Your task to perform on an android device: When is my next appointment? Image 0: 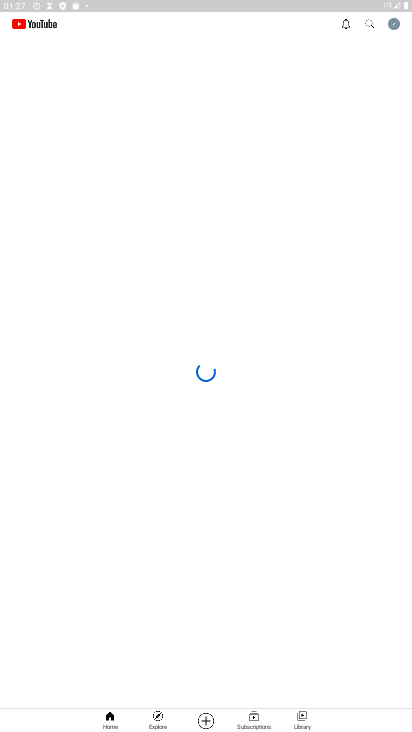
Step 0: press home button
Your task to perform on an android device: When is my next appointment? Image 1: 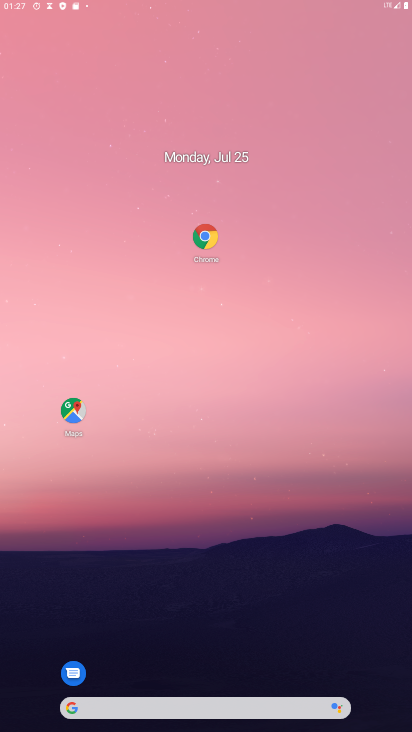
Step 1: click (208, 1)
Your task to perform on an android device: When is my next appointment? Image 2: 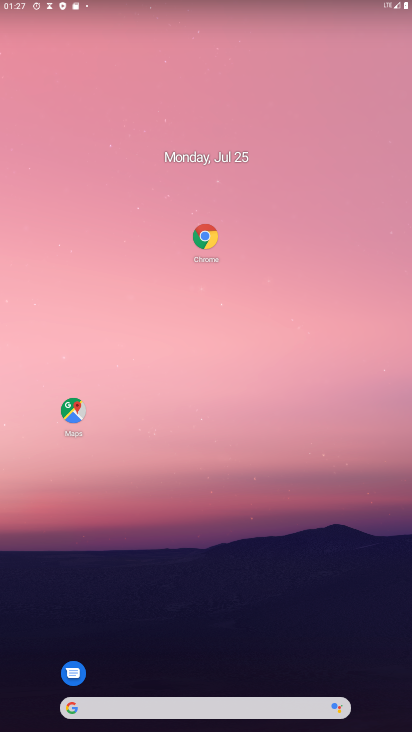
Step 2: drag from (221, 656) to (410, 500)
Your task to perform on an android device: When is my next appointment? Image 3: 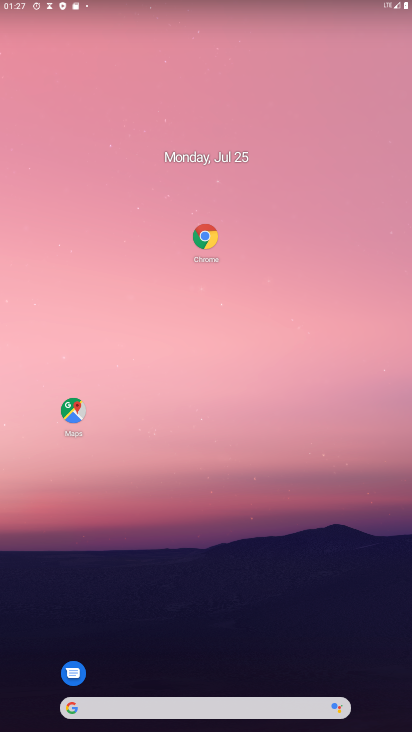
Step 3: drag from (263, 701) to (381, 32)
Your task to perform on an android device: When is my next appointment? Image 4: 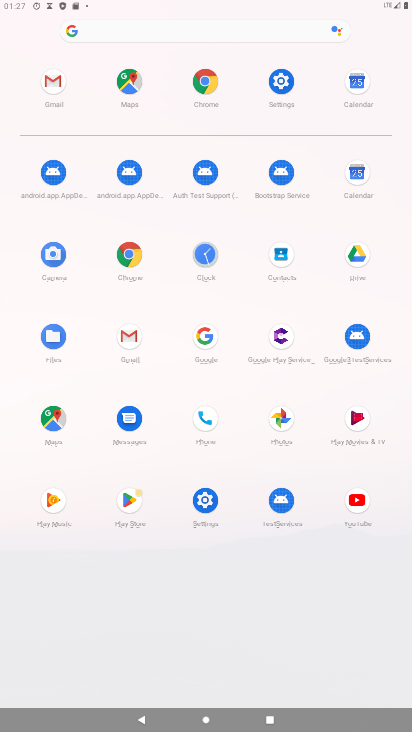
Step 4: click (360, 172)
Your task to perform on an android device: When is my next appointment? Image 5: 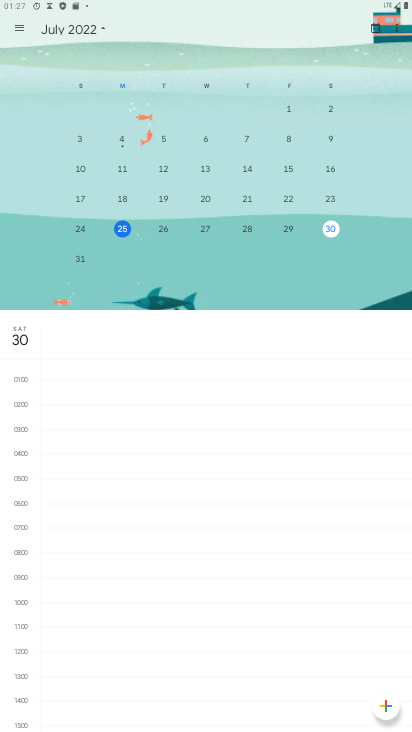
Step 5: click (203, 227)
Your task to perform on an android device: When is my next appointment? Image 6: 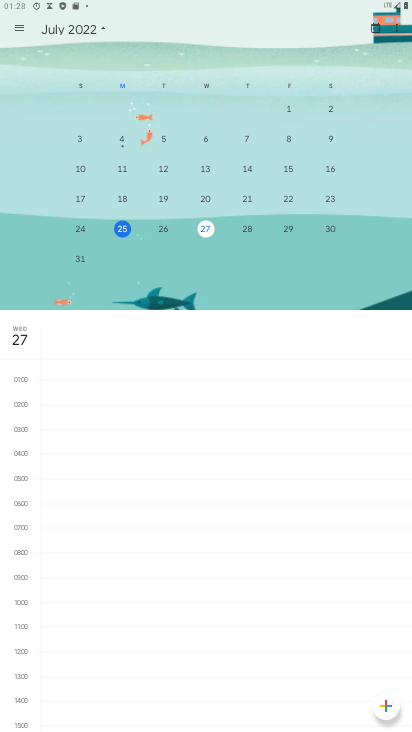
Step 6: task complete